Your task to perform on an android device: Show me popular games on the Play Store Image 0: 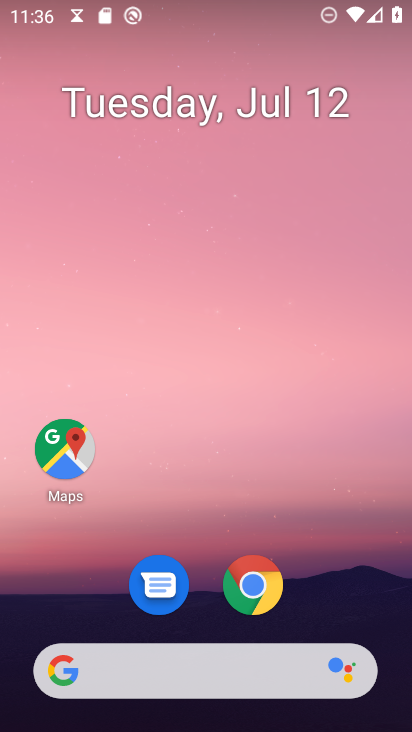
Step 0: drag from (167, 634) to (296, 28)
Your task to perform on an android device: Show me popular games on the Play Store Image 1: 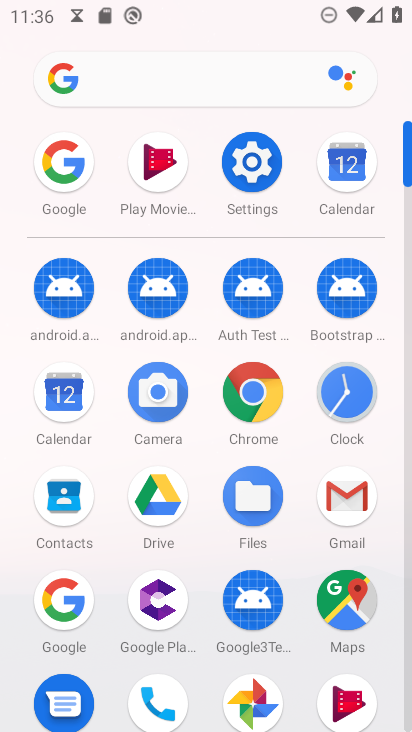
Step 1: drag from (220, 647) to (245, 166)
Your task to perform on an android device: Show me popular games on the Play Store Image 2: 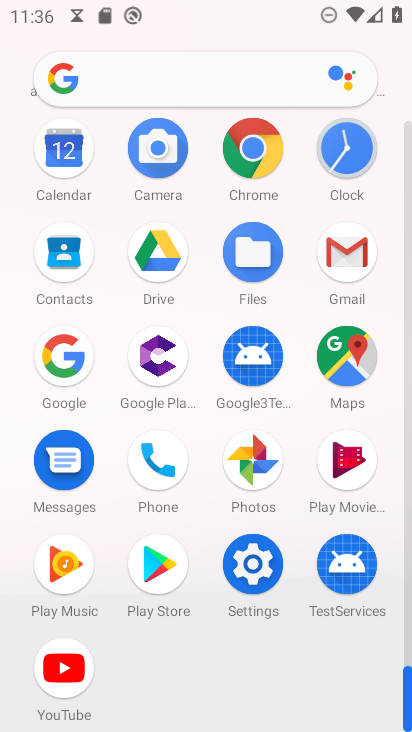
Step 2: click (159, 558)
Your task to perform on an android device: Show me popular games on the Play Store Image 3: 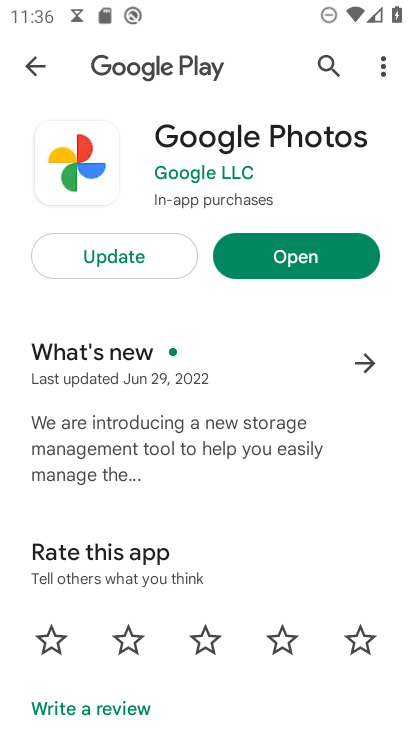
Step 3: click (38, 56)
Your task to perform on an android device: Show me popular games on the Play Store Image 4: 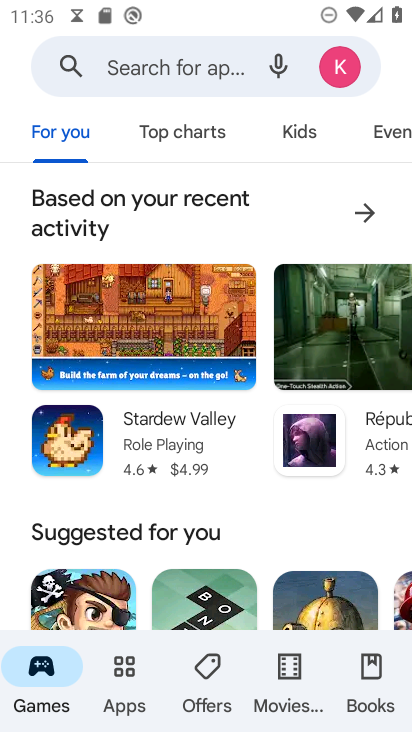
Step 4: drag from (166, 544) to (206, 86)
Your task to perform on an android device: Show me popular games on the Play Store Image 5: 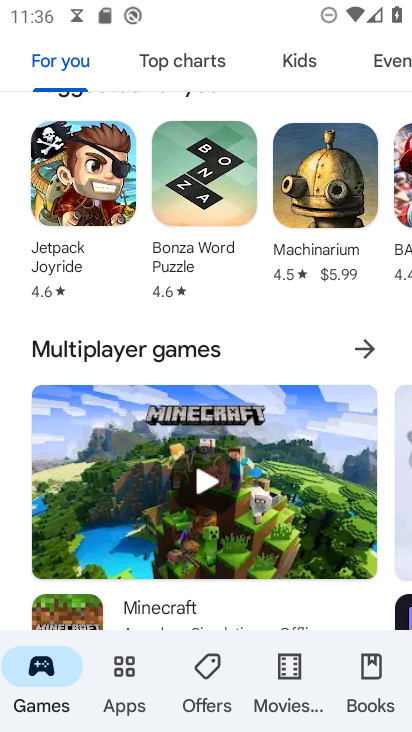
Step 5: drag from (205, 542) to (226, 95)
Your task to perform on an android device: Show me popular games on the Play Store Image 6: 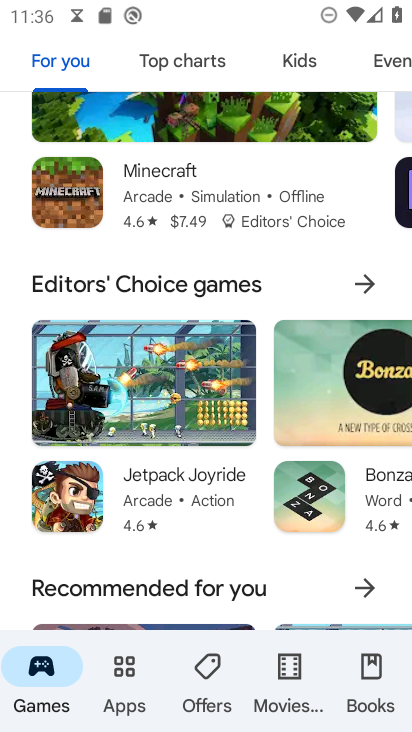
Step 6: drag from (152, 604) to (166, 163)
Your task to perform on an android device: Show me popular games on the Play Store Image 7: 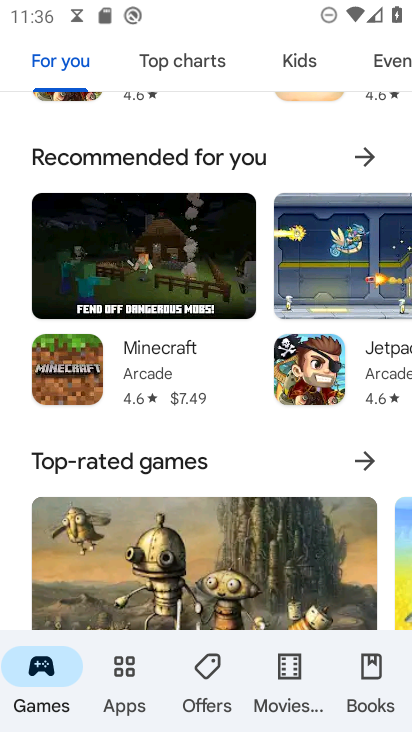
Step 7: click (353, 459)
Your task to perform on an android device: Show me popular games on the Play Store Image 8: 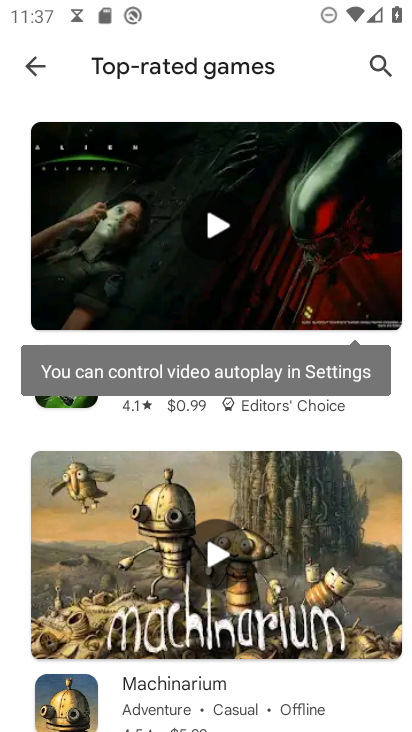
Step 8: task complete